Your task to perform on an android device: Open calendar and show me the first week of next month Image 0: 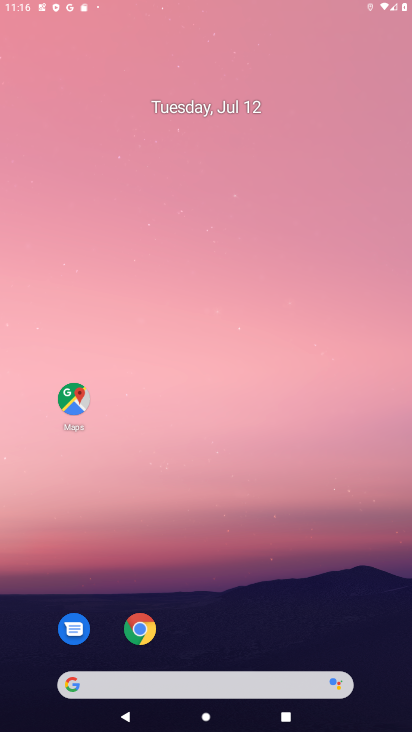
Step 0: click (247, 148)
Your task to perform on an android device: Open calendar and show me the first week of next month Image 1: 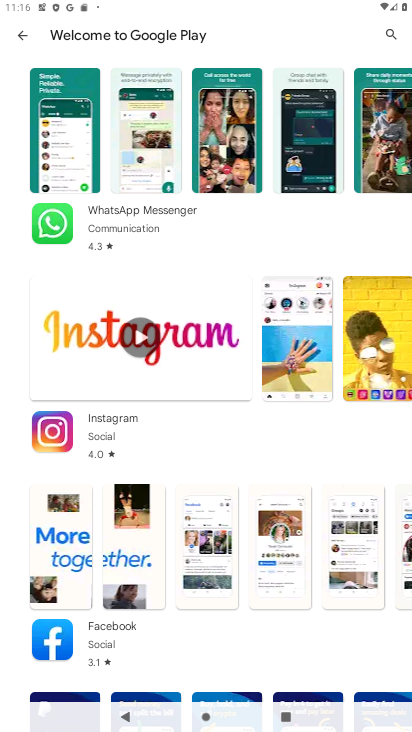
Step 1: press home button
Your task to perform on an android device: Open calendar and show me the first week of next month Image 2: 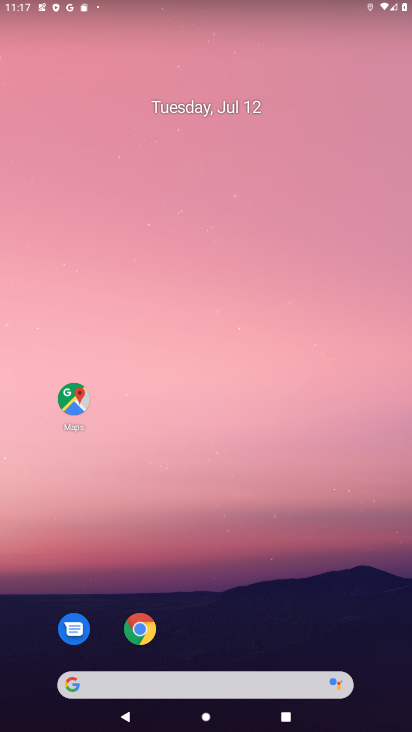
Step 2: drag from (264, 604) to (205, 160)
Your task to perform on an android device: Open calendar and show me the first week of next month Image 3: 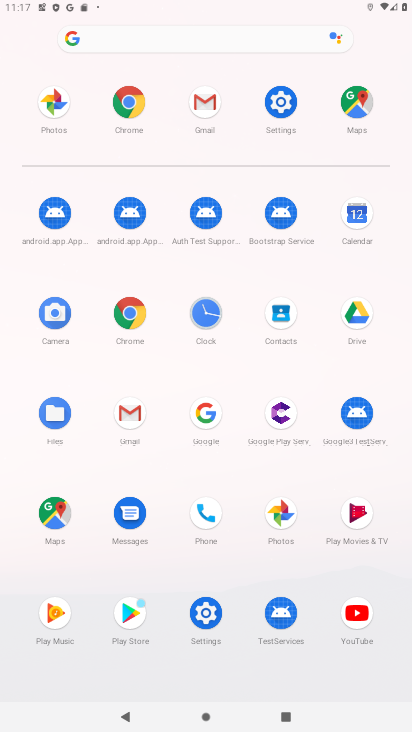
Step 3: click (361, 202)
Your task to perform on an android device: Open calendar and show me the first week of next month Image 4: 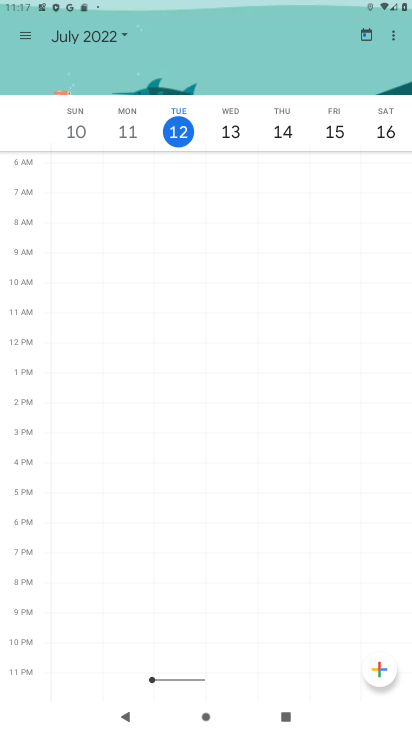
Step 4: task complete